Your task to perform on an android device: set default search engine in the chrome app Image 0: 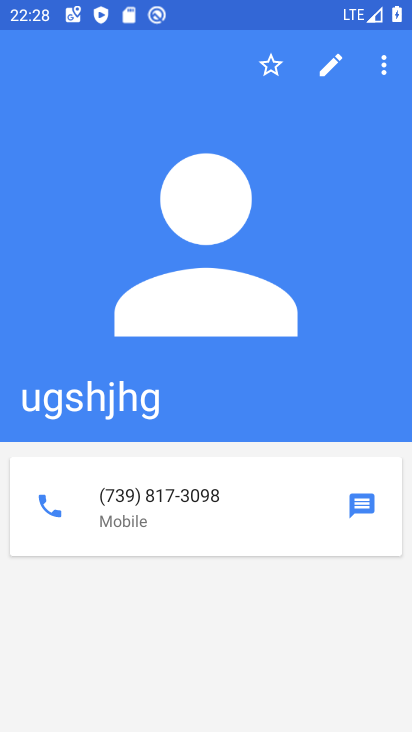
Step 0: press home button
Your task to perform on an android device: set default search engine in the chrome app Image 1: 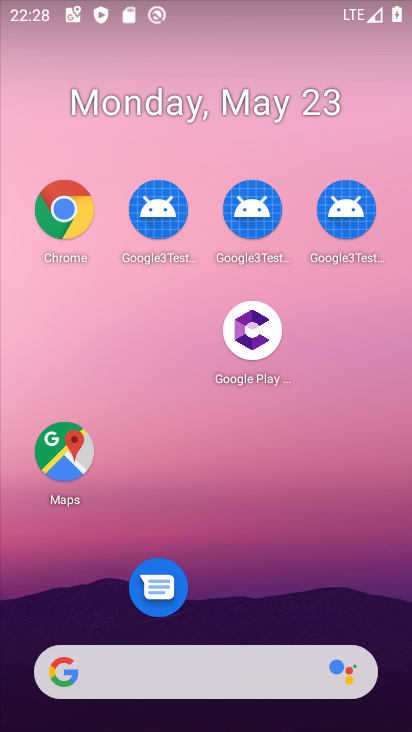
Step 1: click (91, 210)
Your task to perform on an android device: set default search engine in the chrome app Image 2: 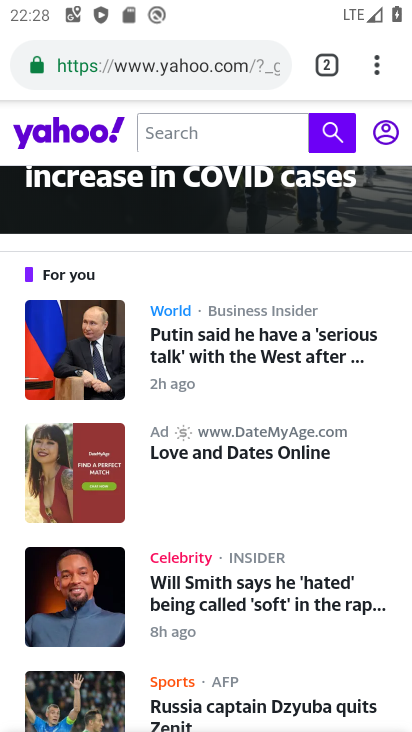
Step 2: click (373, 57)
Your task to perform on an android device: set default search engine in the chrome app Image 3: 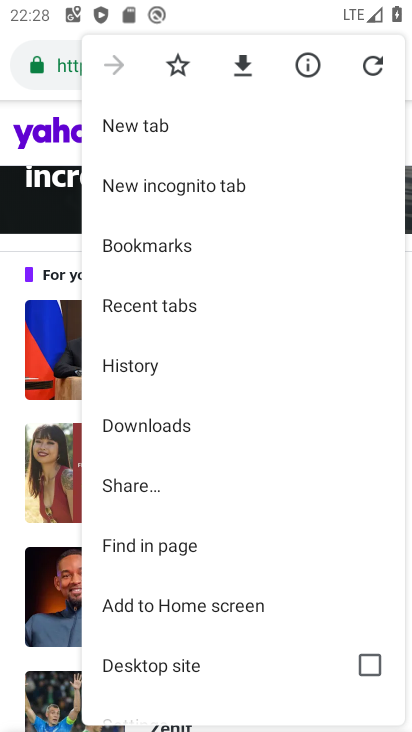
Step 3: drag from (237, 414) to (237, 247)
Your task to perform on an android device: set default search engine in the chrome app Image 4: 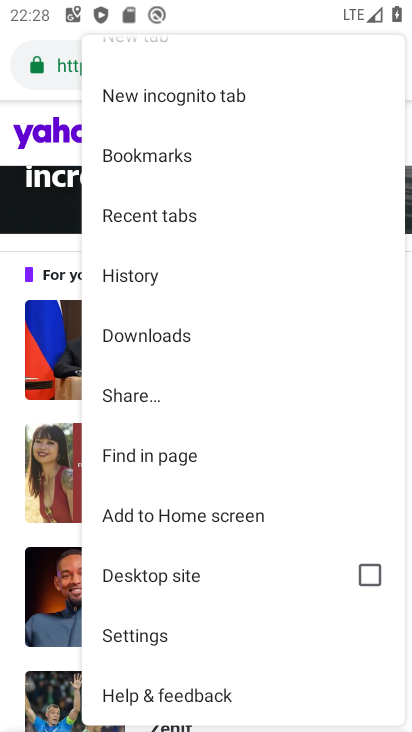
Step 4: drag from (266, 619) to (322, 180)
Your task to perform on an android device: set default search engine in the chrome app Image 5: 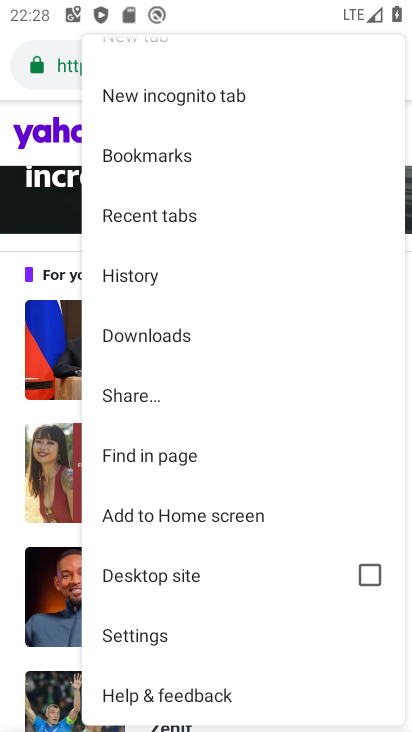
Step 5: click (171, 631)
Your task to perform on an android device: set default search engine in the chrome app Image 6: 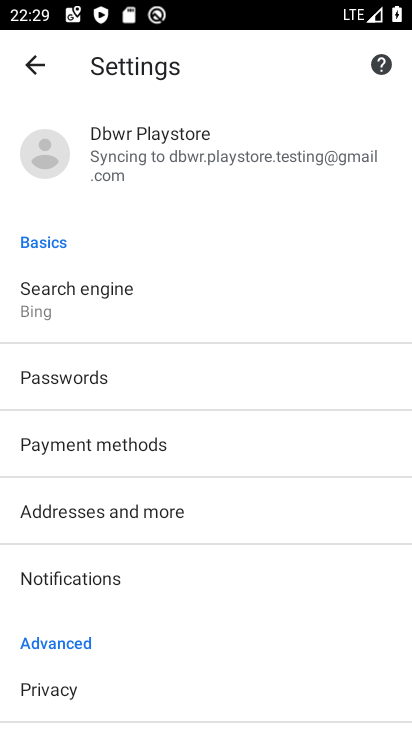
Step 6: drag from (148, 590) to (178, 279)
Your task to perform on an android device: set default search engine in the chrome app Image 7: 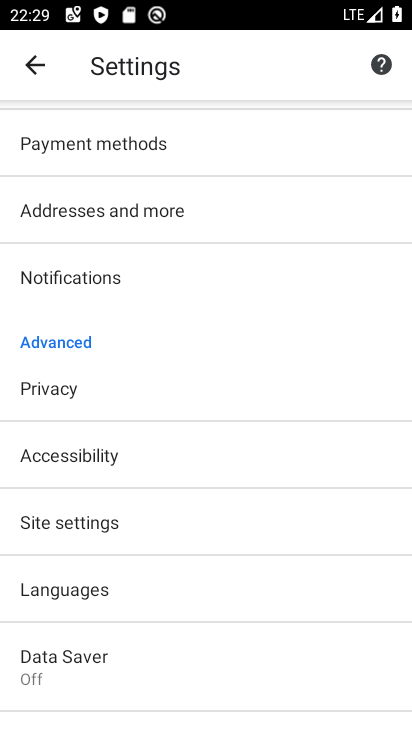
Step 7: drag from (256, 579) to (240, 245)
Your task to perform on an android device: set default search engine in the chrome app Image 8: 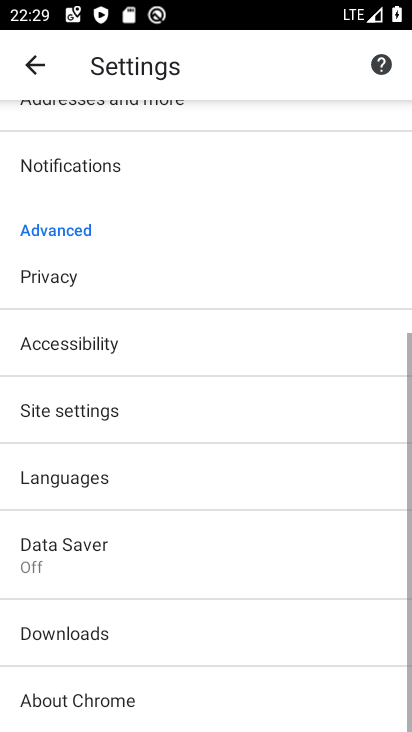
Step 8: drag from (247, 569) to (261, 128)
Your task to perform on an android device: set default search engine in the chrome app Image 9: 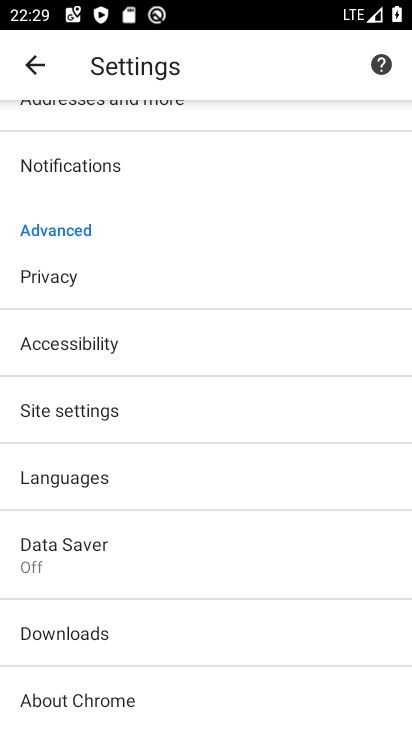
Step 9: click (182, 271)
Your task to perform on an android device: set default search engine in the chrome app Image 10: 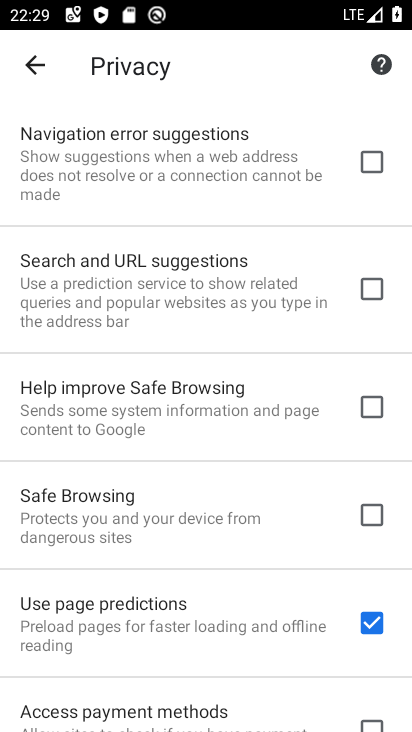
Step 10: drag from (248, 318) to (250, 258)
Your task to perform on an android device: set default search engine in the chrome app Image 11: 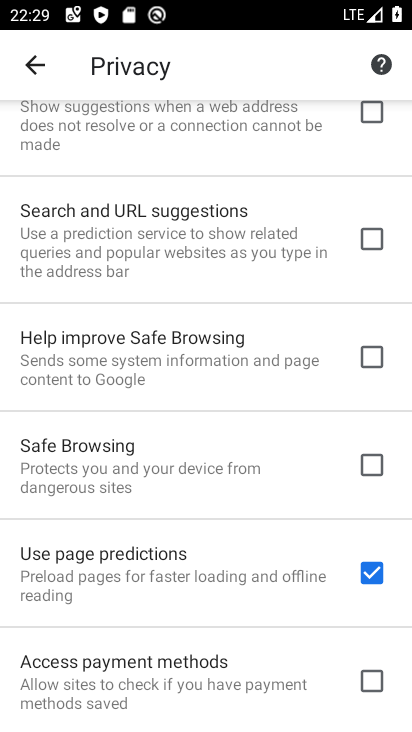
Step 11: drag from (199, 601) to (198, 288)
Your task to perform on an android device: set default search engine in the chrome app Image 12: 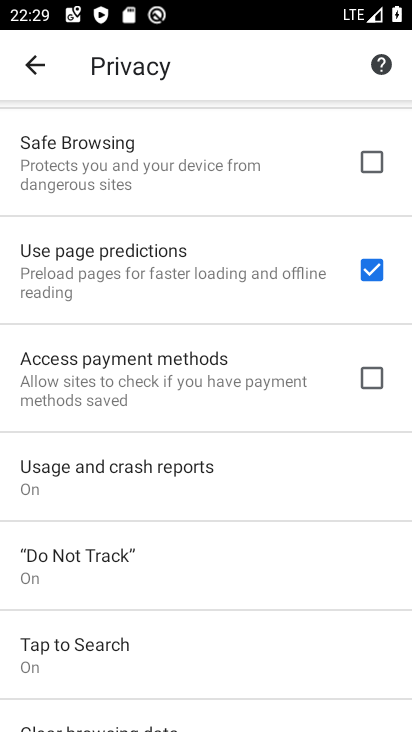
Step 12: drag from (146, 582) to (192, 274)
Your task to perform on an android device: set default search engine in the chrome app Image 13: 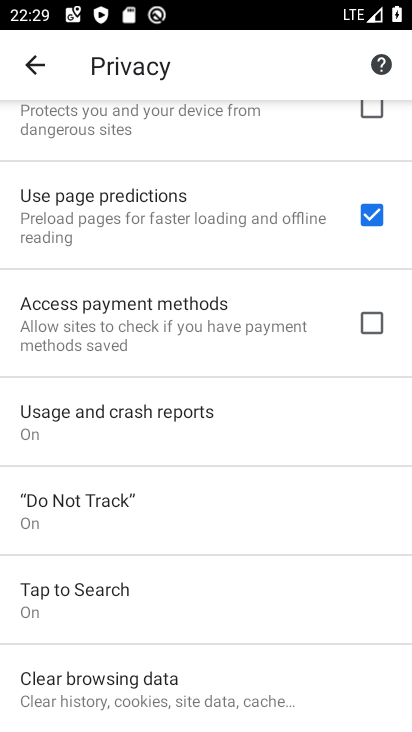
Step 13: click (191, 698)
Your task to perform on an android device: set default search engine in the chrome app Image 14: 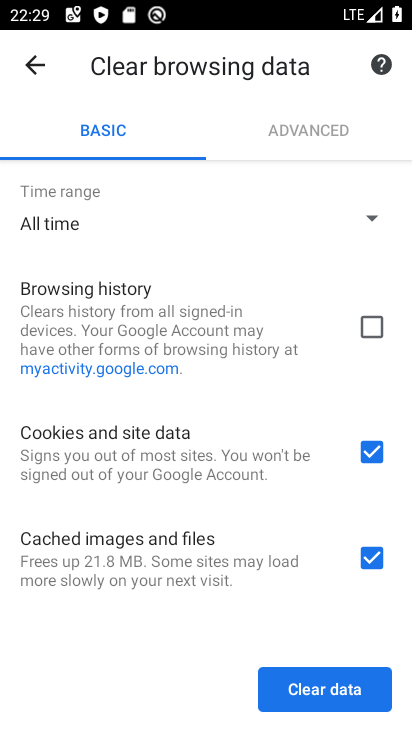
Step 14: drag from (91, 525) to (131, 245)
Your task to perform on an android device: set default search engine in the chrome app Image 15: 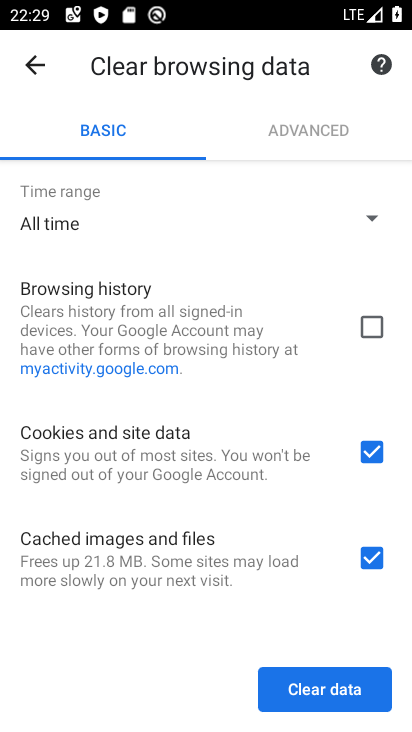
Step 15: press back button
Your task to perform on an android device: set default search engine in the chrome app Image 16: 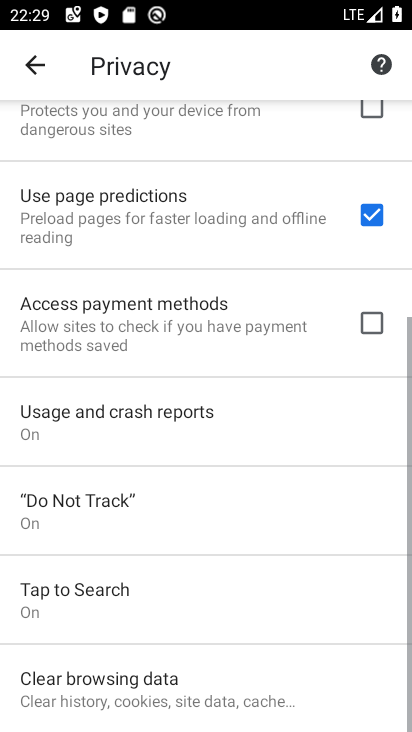
Step 16: press back button
Your task to perform on an android device: set default search engine in the chrome app Image 17: 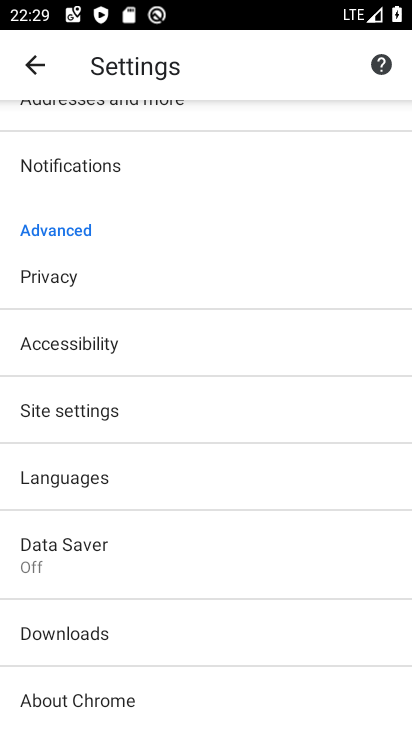
Step 17: click (173, 414)
Your task to perform on an android device: set default search engine in the chrome app Image 18: 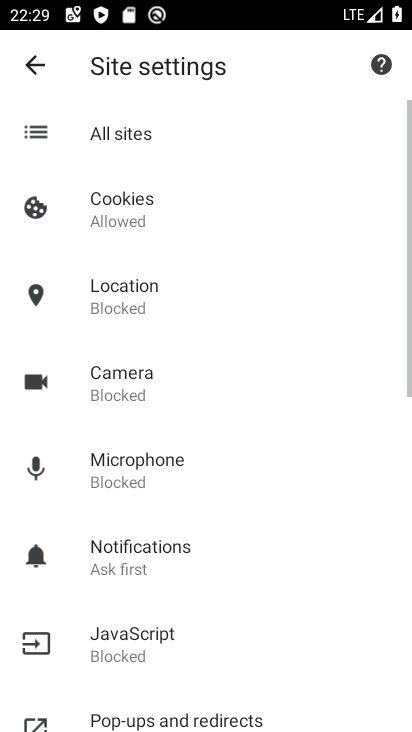
Step 18: drag from (215, 647) to (224, 325)
Your task to perform on an android device: set default search engine in the chrome app Image 19: 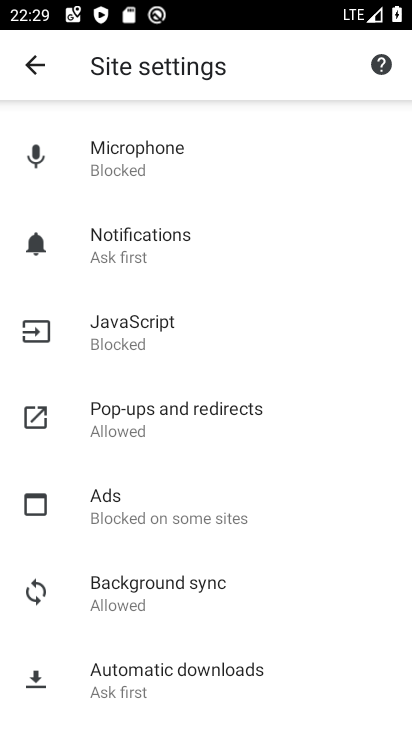
Step 19: drag from (221, 622) to (196, 275)
Your task to perform on an android device: set default search engine in the chrome app Image 20: 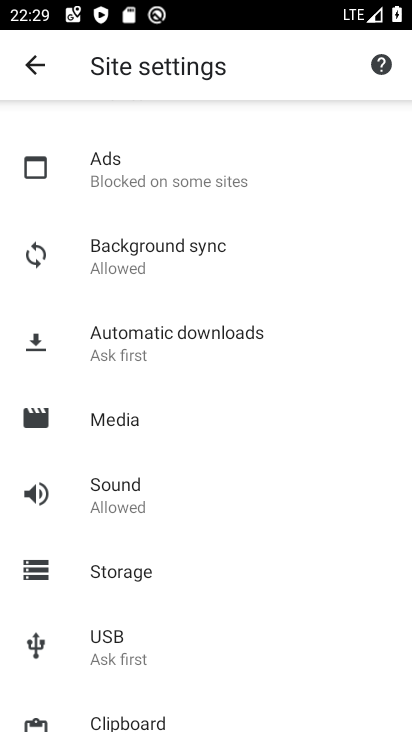
Step 20: drag from (229, 546) to (214, 219)
Your task to perform on an android device: set default search engine in the chrome app Image 21: 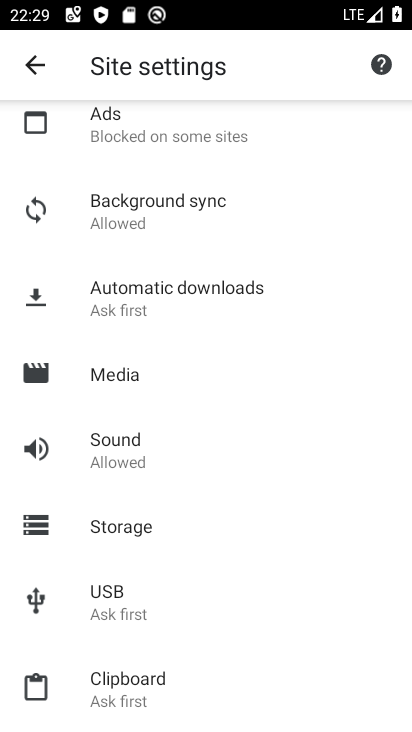
Step 21: press back button
Your task to perform on an android device: set default search engine in the chrome app Image 22: 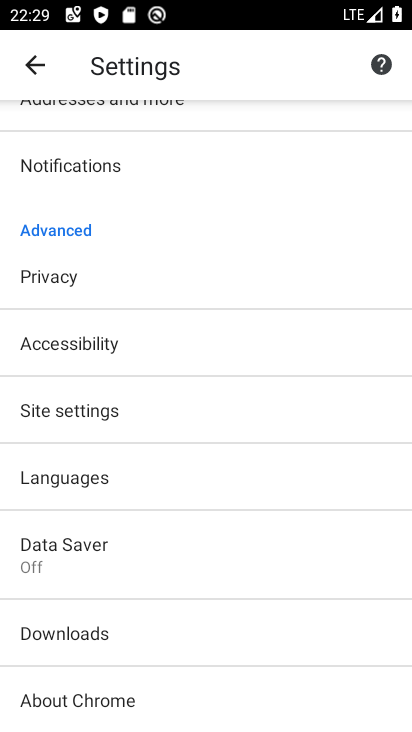
Step 22: click (159, 275)
Your task to perform on an android device: set default search engine in the chrome app Image 23: 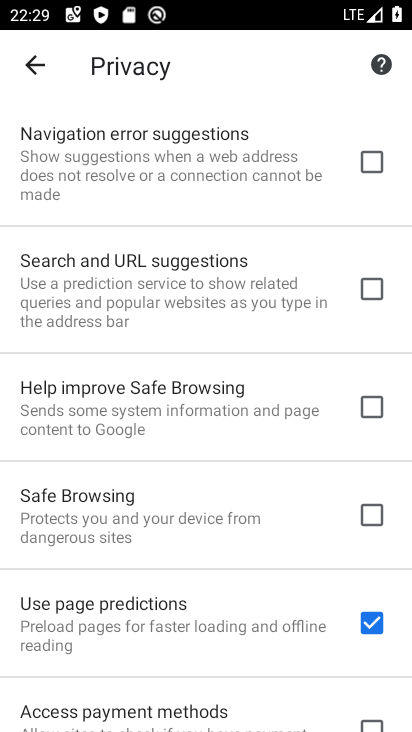
Step 23: press back button
Your task to perform on an android device: set default search engine in the chrome app Image 24: 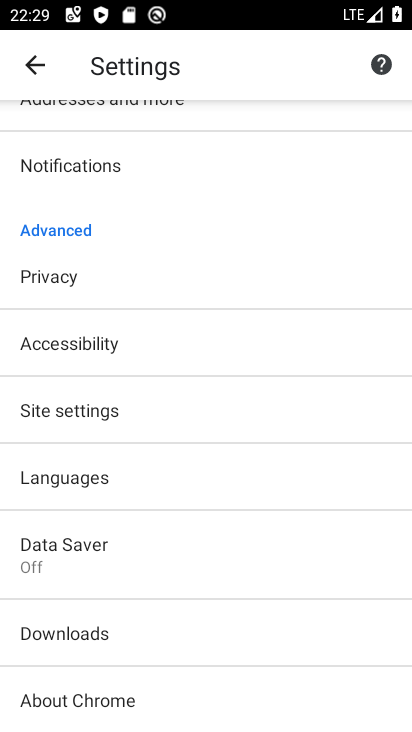
Step 24: click (52, 334)
Your task to perform on an android device: set default search engine in the chrome app Image 25: 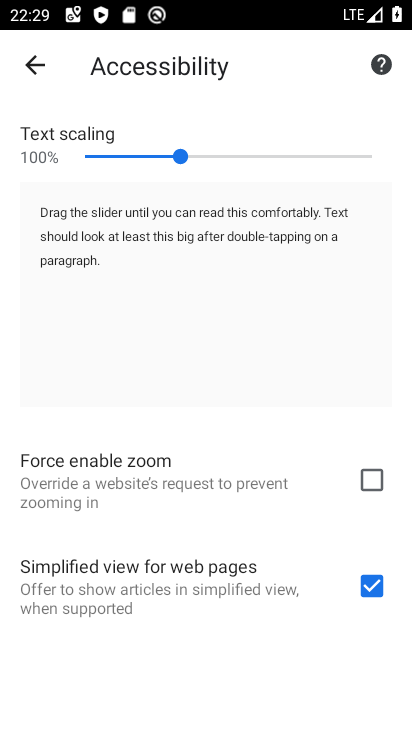
Step 25: drag from (138, 534) to (129, 359)
Your task to perform on an android device: set default search engine in the chrome app Image 26: 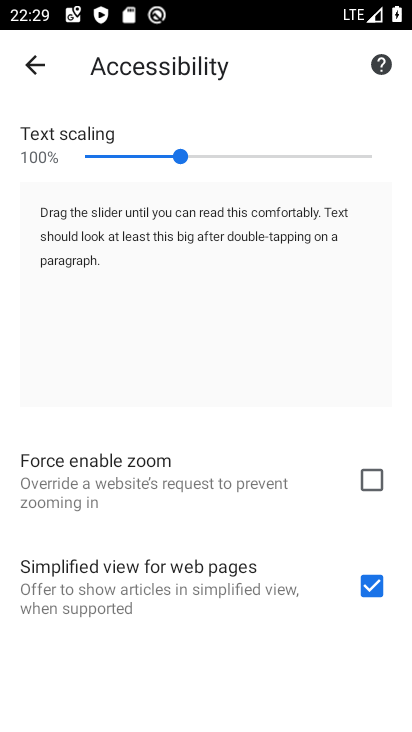
Step 26: press back button
Your task to perform on an android device: set default search engine in the chrome app Image 27: 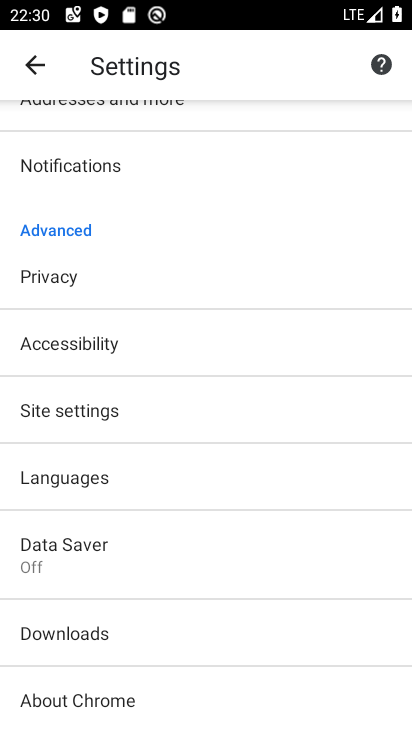
Step 27: drag from (188, 633) to (173, 371)
Your task to perform on an android device: set default search engine in the chrome app Image 28: 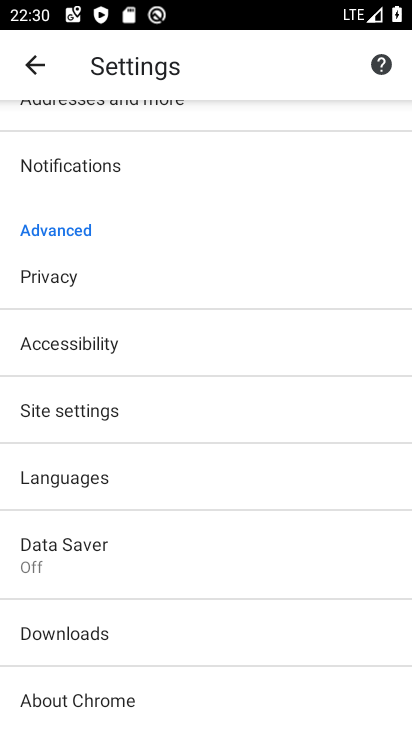
Step 28: click (137, 689)
Your task to perform on an android device: set default search engine in the chrome app Image 29: 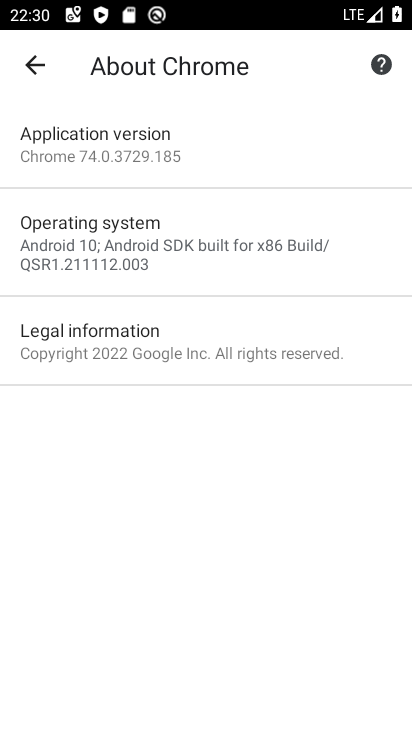
Step 29: task complete